Your task to perform on an android device: Check the news Image 0: 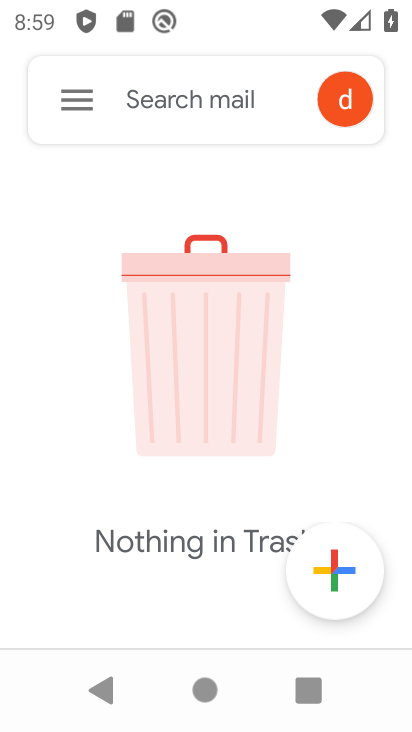
Step 0: press home button
Your task to perform on an android device: Check the news Image 1: 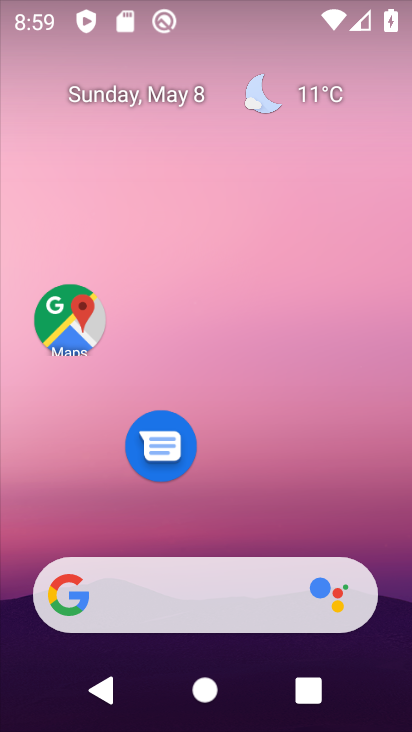
Step 1: drag from (271, 481) to (209, 16)
Your task to perform on an android device: Check the news Image 2: 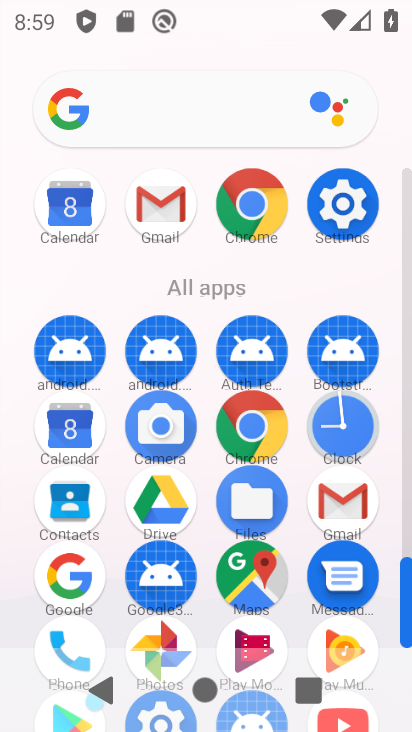
Step 2: click (262, 172)
Your task to perform on an android device: Check the news Image 3: 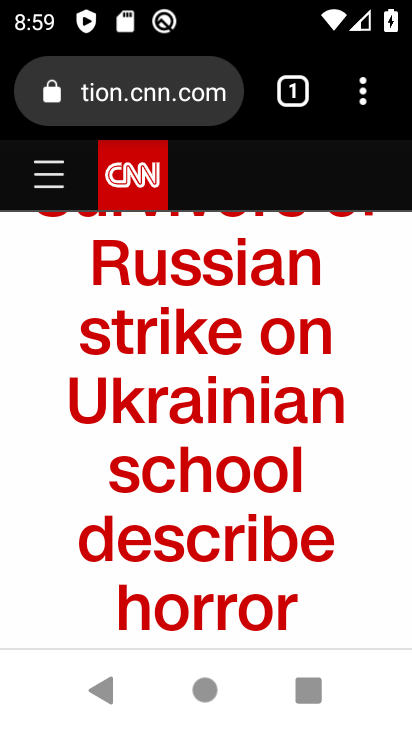
Step 3: click (171, 91)
Your task to perform on an android device: Check the news Image 4: 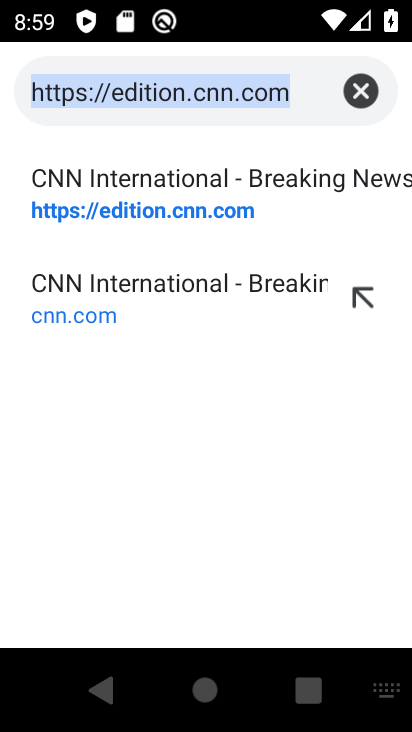
Step 4: click (350, 96)
Your task to perform on an android device: Check the news Image 5: 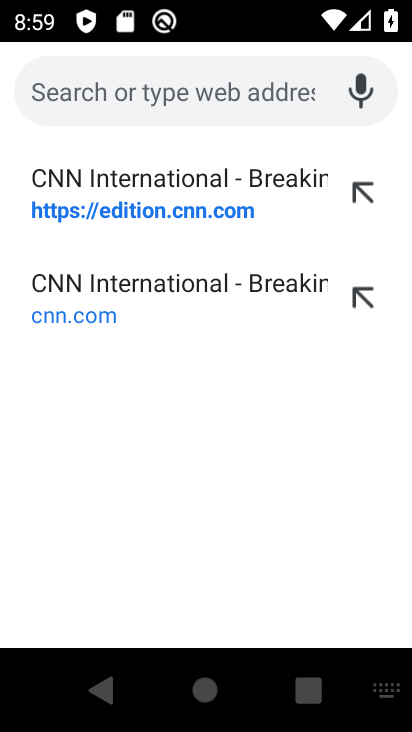
Step 5: type "Check the news"
Your task to perform on an android device: Check the news Image 6: 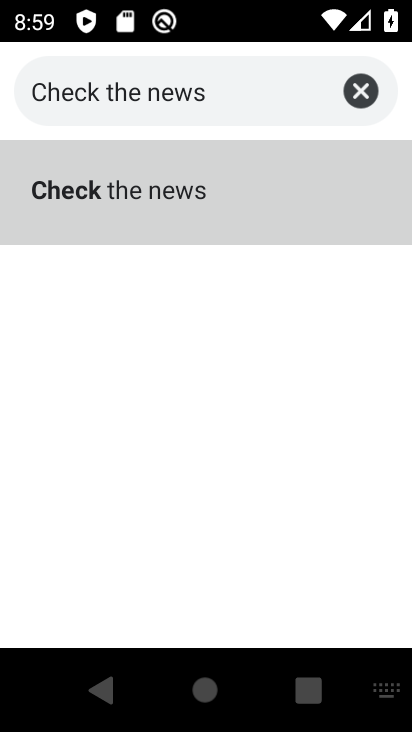
Step 6: click (179, 196)
Your task to perform on an android device: Check the news Image 7: 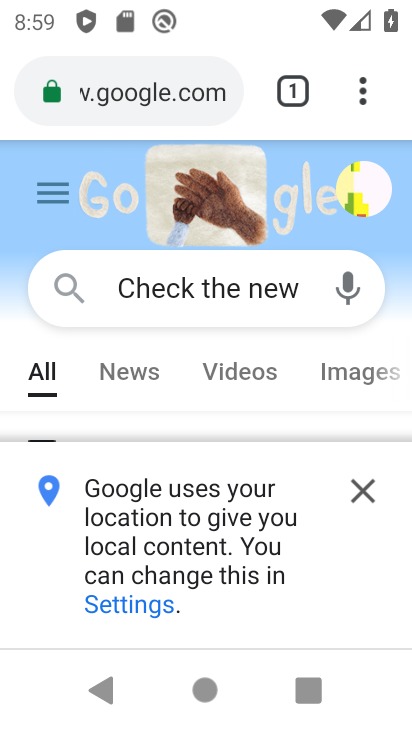
Step 7: task complete